Your task to perform on an android device: Show me recent news Image 0: 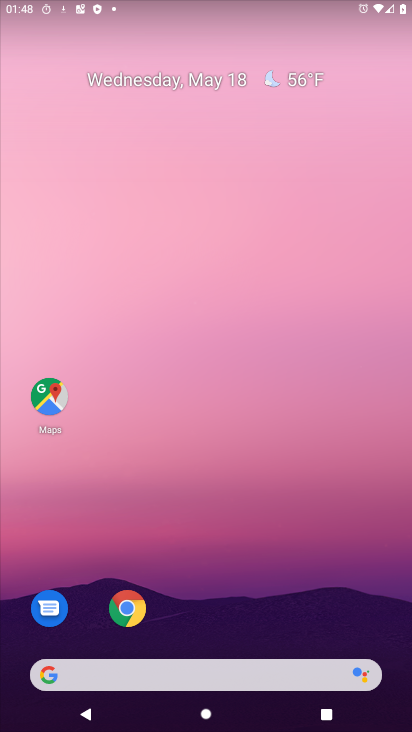
Step 0: drag from (233, 703) to (210, 236)
Your task to perform on an android device: Show me recent news Image 1: 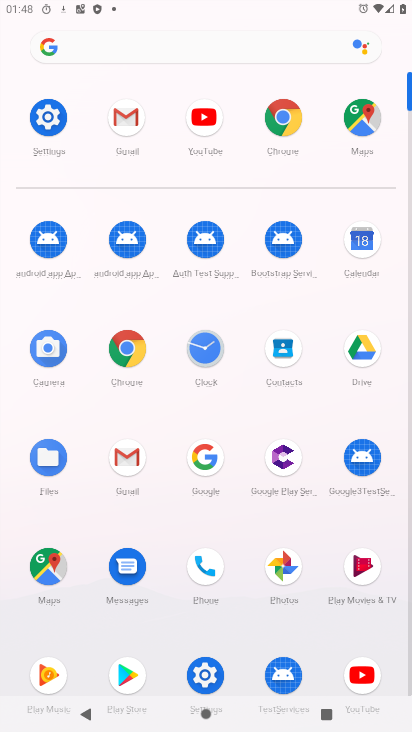
Step 1: click (119, 51)
Your task to perform on an android device: Show me recent news Image 2: 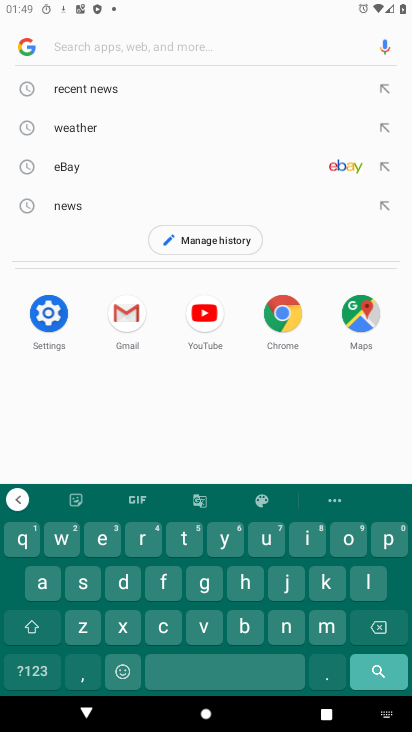
Step 2: click (113, 81)
Your task to perform on an android device: Show me recent news Image 3: 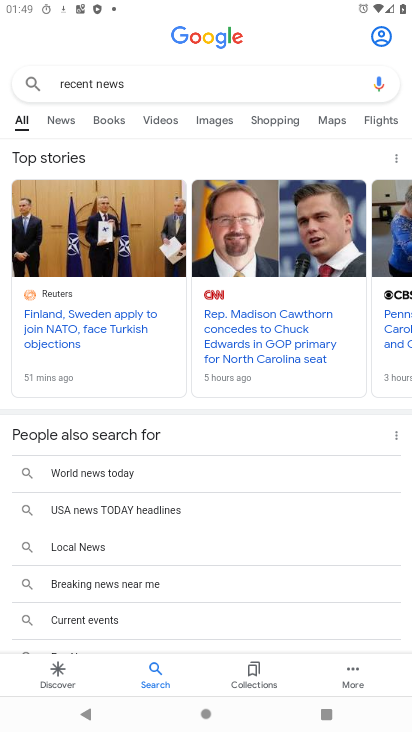
Step 3: task complete